Your task to perform on an android device: install app "Google Find My Device" Image 0: 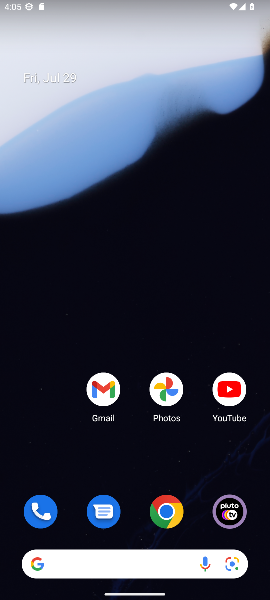
Step 0: drag from (163, 534) to (153, 53)
Your task to perform on an android device: install app "Google Find My Device" Image 1: 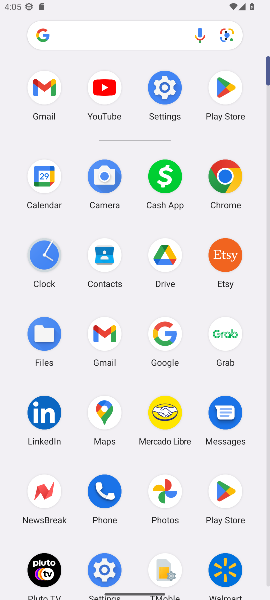
Step 1: click (218, 92)
Your task to perform on an android device: install app "Google Find My Device" Image 2: 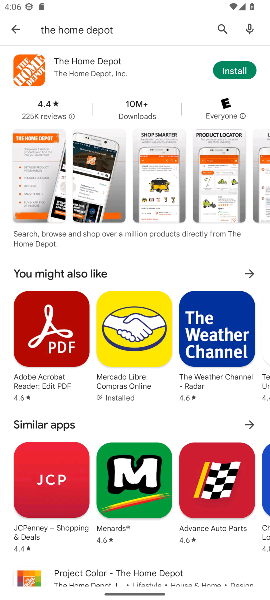
Step 2: click (160, 34)
Your task to perform on an android device: install app "Google Find My Device" Image 3: 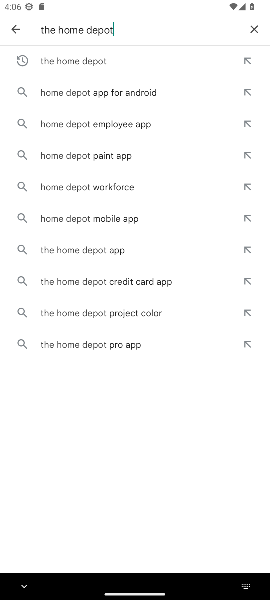
Step 3: click (250, 32)
Your task to perform on an android device: install app "Google Find My Device" Image 4: 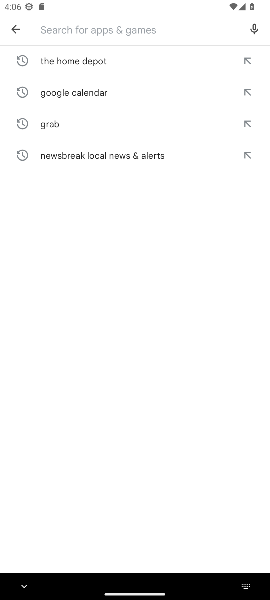
Step 4: type "Google Find My Device"
Your task to perform on an android device: install app "Google Find My Device" Image 5: 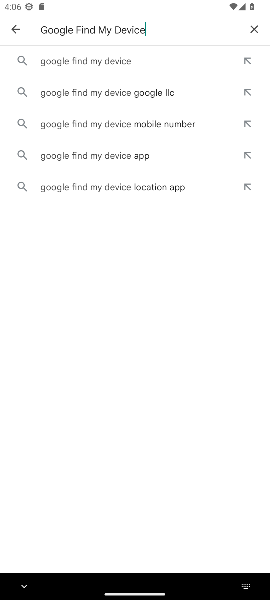
Step 5: click (86, 63)
Your task to perform on an android device: install app "Google Find My Device" Image 6: 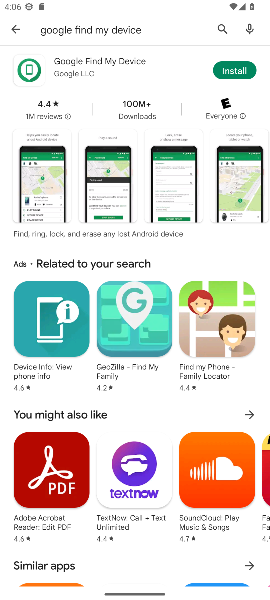
Step 6: click (227, 70)
Your task to perform on an android device: install app "Google Find My Device" Image 7: 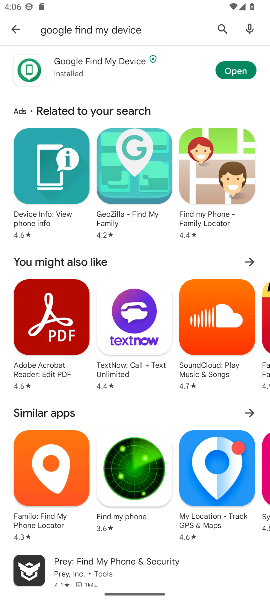
Step 7: click (227, 73)
Your task to perform on an android device: install app "Google Find My Device" Image 8: 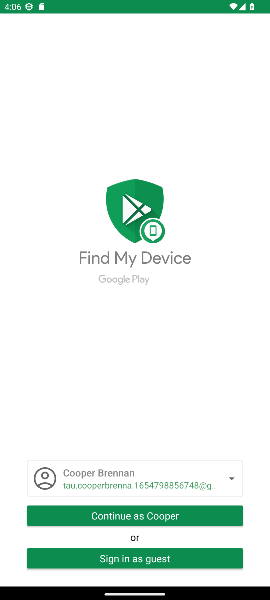
Step 8: task complete